Your task to perform on an android device: turn off sleep mode Image 0: 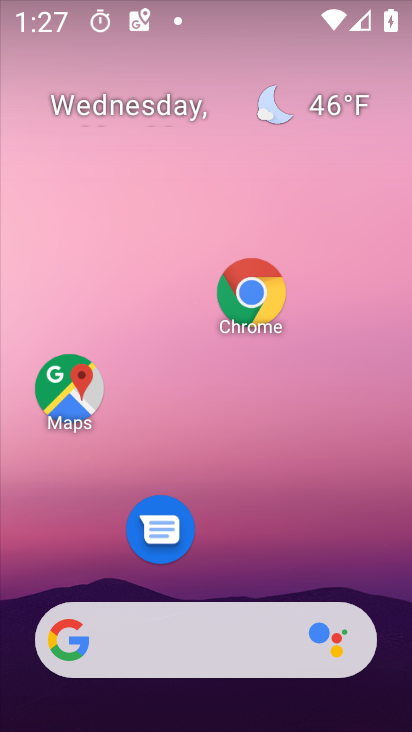
Step 0: drag from (248, 547) to (237, 72)
Your task to perform on an android device: turn off sleep mode Image 1: 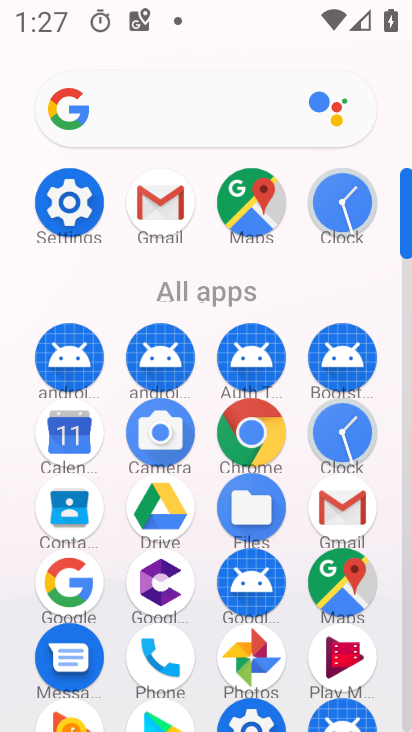
Step 1: click (65, 204)
Your task to perform on an android device: turn off sleep mode Image 2: 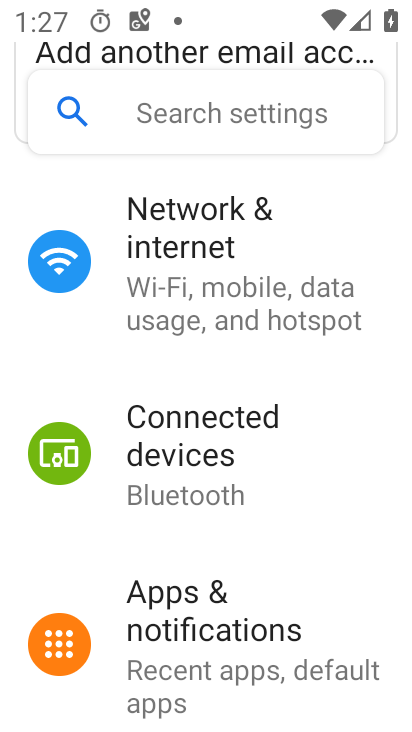
Step 2: task complete